Your task to perform on an android device: turn off notifications settings in the gmail app Image 0: 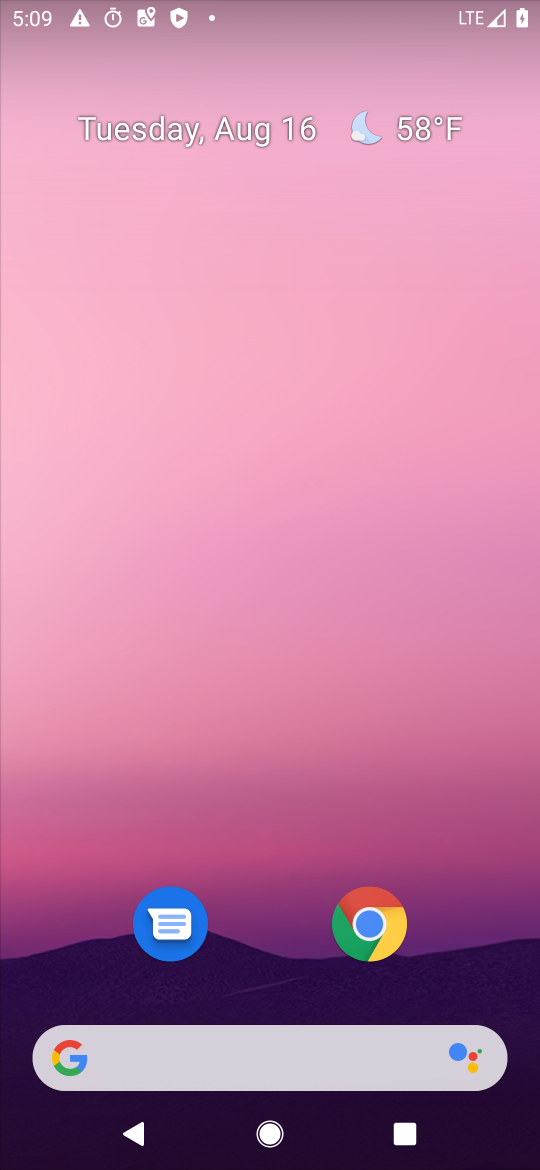
Step 0: drag from (280, 978) to (282, 181)
Your task to perform on an android device: turn off notifications settings in the gmail app Image 1: 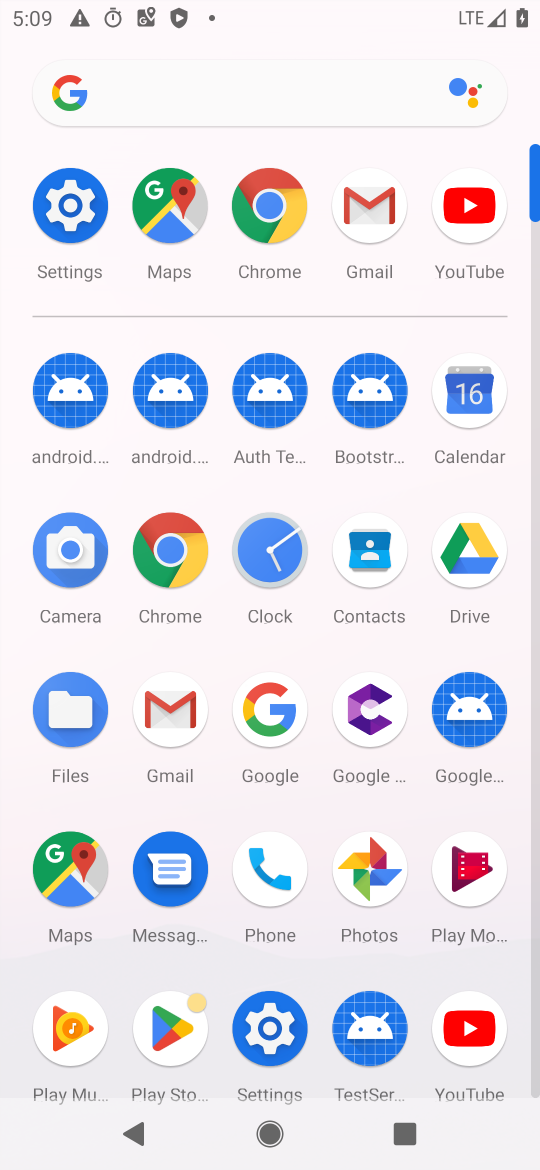
Step 1: click (75, 216)
Your task to perform on an android device: turn off notifications settings in the gmail app Image 2: 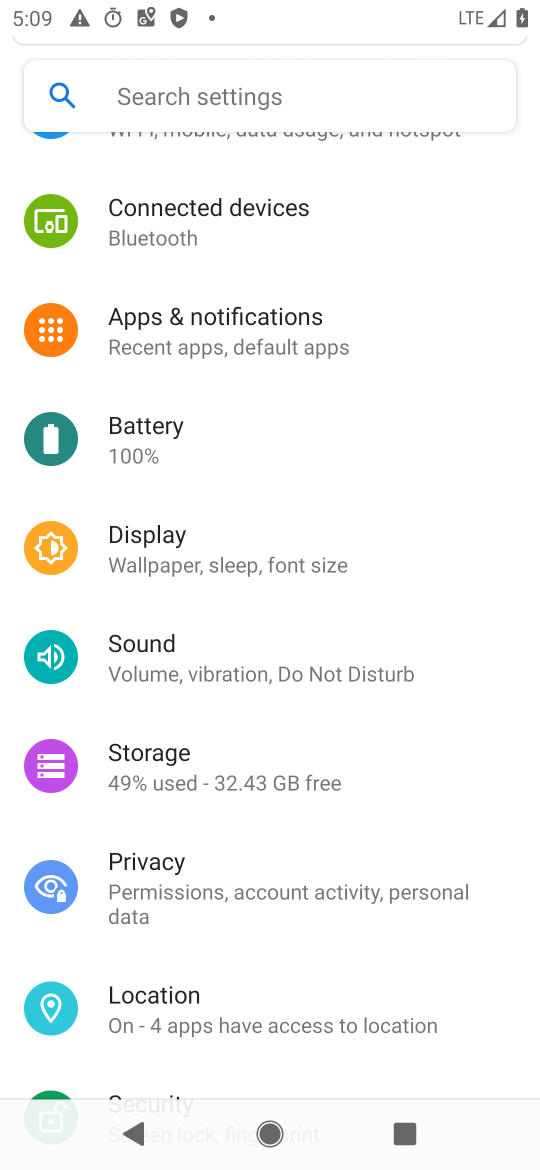
Step 2: click (255, 312)
Your task to perform on an android device: turn off notifications settings in the gmail app Image 3: 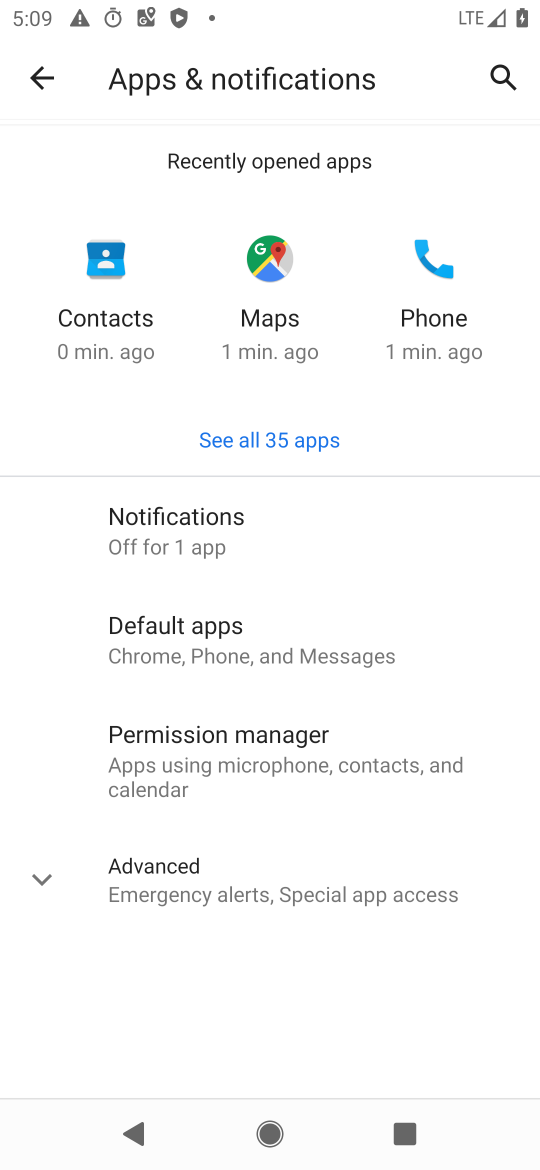
Step 3: click (281, 432)
Your task to perform on an android device: turn off notifications settings in the gmail app Image 4: 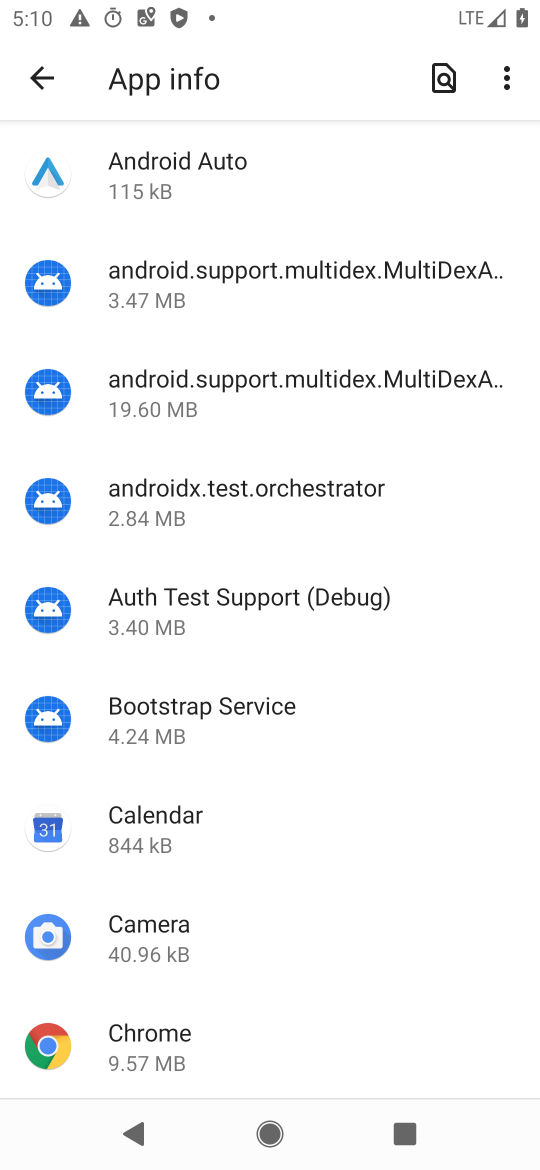
Step 4: drag from (177, 999) to (208, 340)
Your task to perform on an android device: turn off notifications settings in the gmail app Image 5: 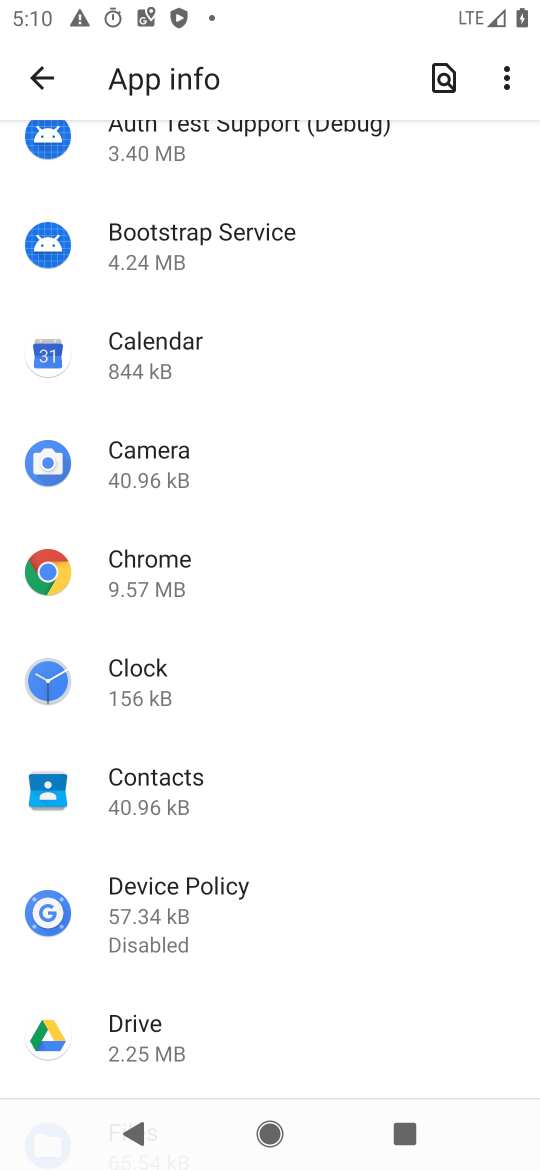
Step 5: drag from (144, 962) to (315, 119)
Your task to perform on an android device: turn off notifications settings in the gmail app Image 6: 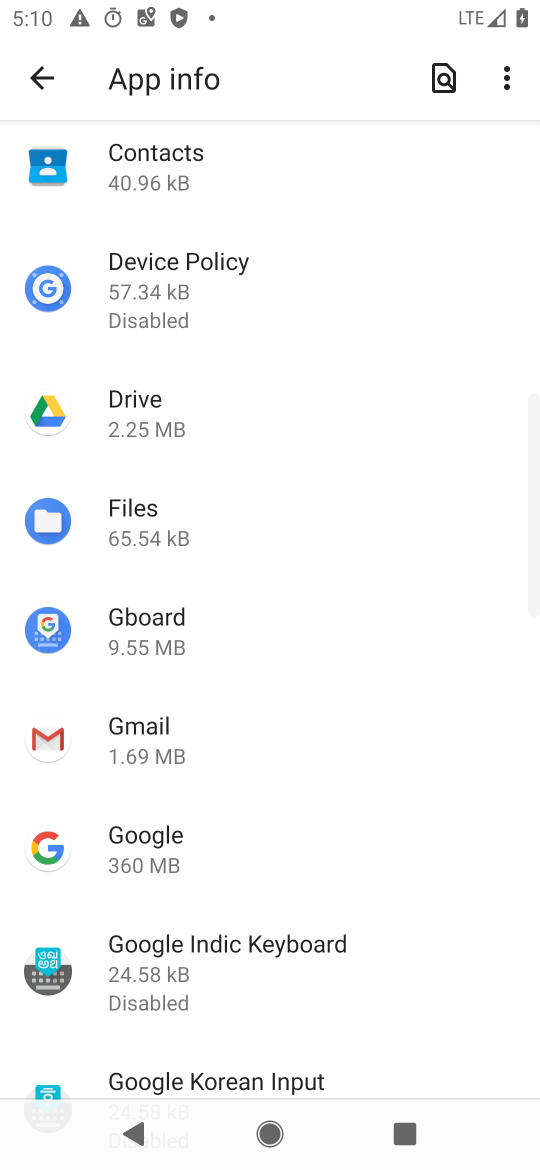
Step 6: click (166, 729)
Your task to perform on an android device: turn off notifications settings in the gmail app Image 7: 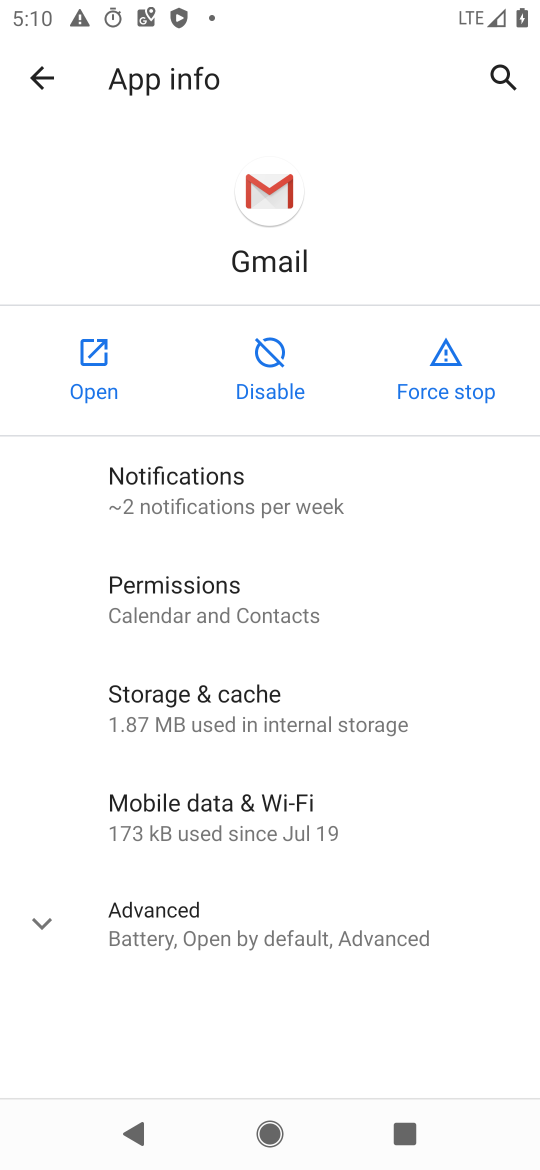
Step 7: click (278, 487)
Your task to perform on an android device: turn off notifications settings in the gmail app Image 8: 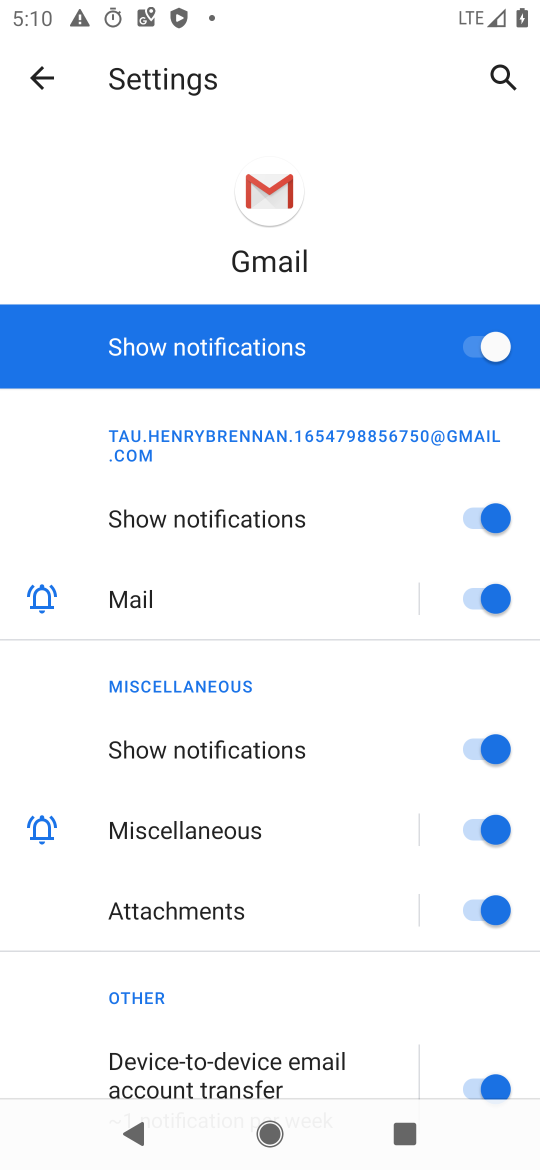
Step 8: click (478, 354)
Your task to perform on an android device: turn off notifications settings in the gmail app Image 9: 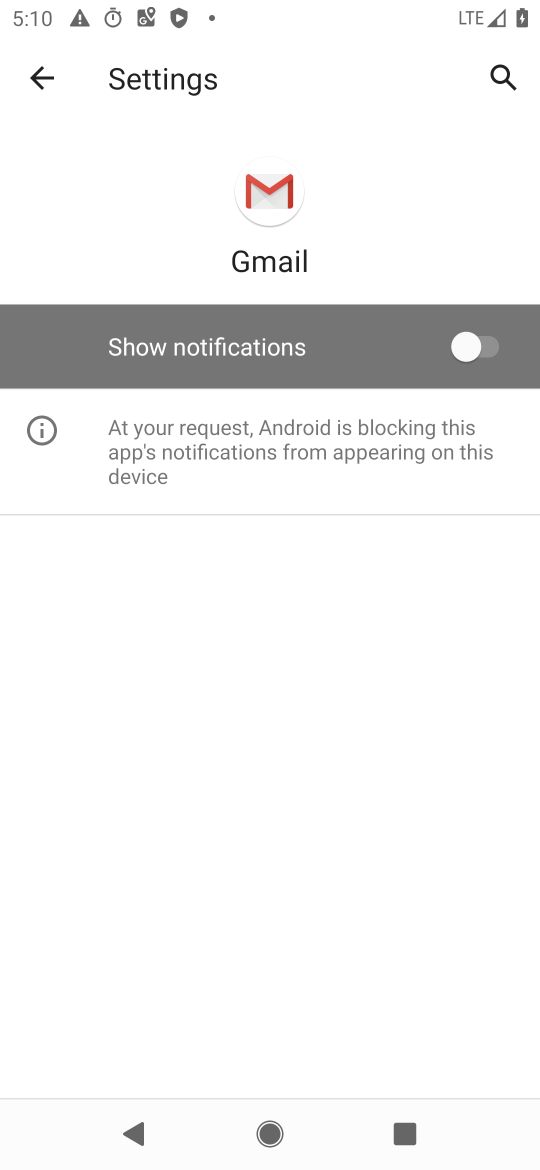
Step 9: task complete